Your task to perform on an android device: What's the weather going to be tomorrow? Image 0: 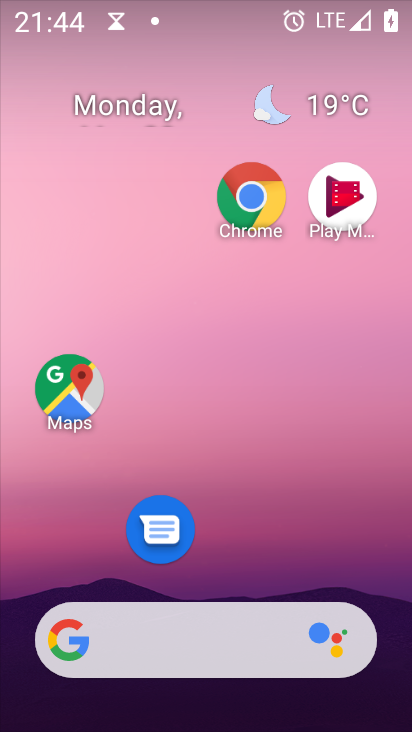
Step 0: click (204, 638)
Your task to perform on an android device: What's the weather going to be tomorrow? Image 1: 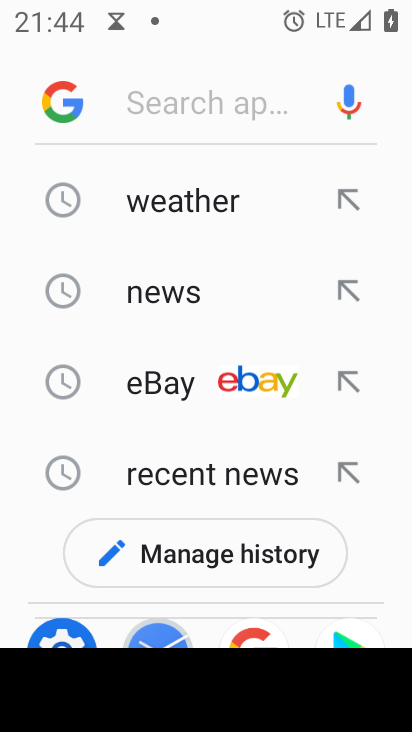
Step 1: click (144, 208)
Your task to perform on an android device: What's the weather going to be tomorrow? Image 2: 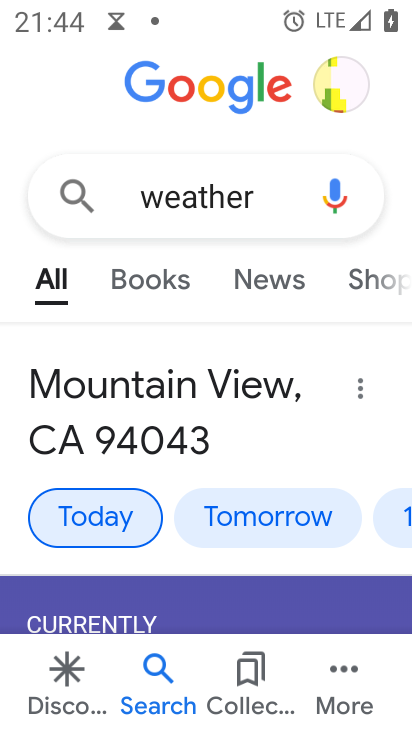
Step 2: click (264, 524)
Your task to perform on an android device: What's the weather going to be tomorrow? Image 3: 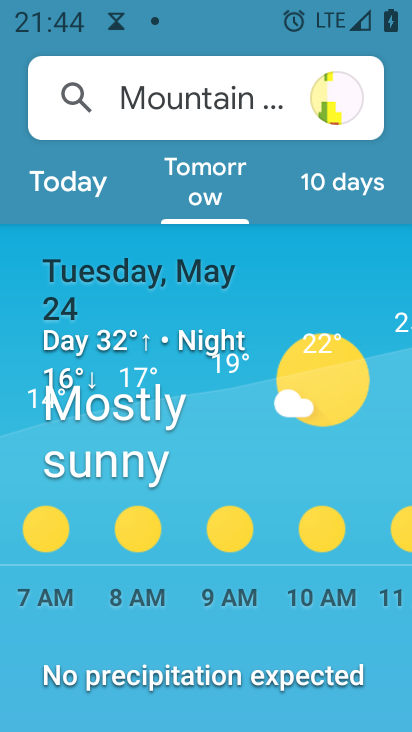
Step 3: task complete